Your task to perform on an android device: turn on location history Image 0: 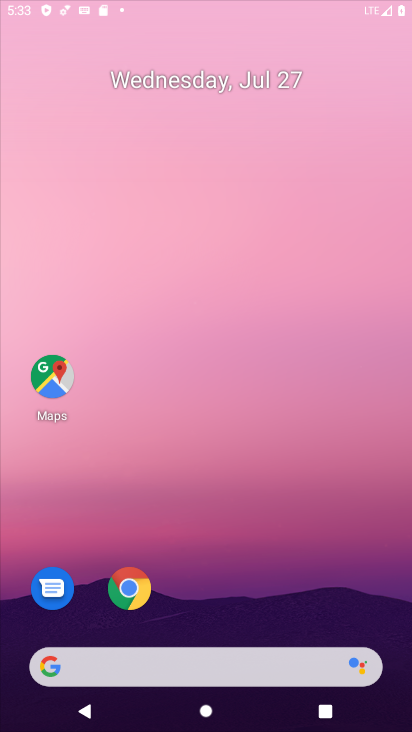
Step 0: press home button
Your task to perform on an android device: turn on location history Image 1: 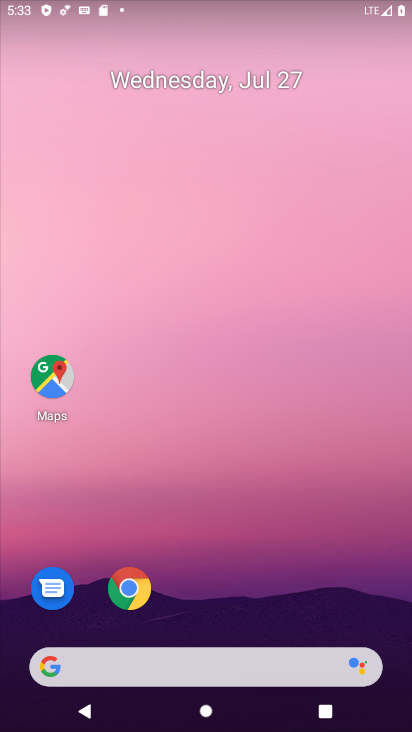
Step 1: drag from (264, 620) to (222, 0)
Your task to perform on an android device: turn on location history Image 2: 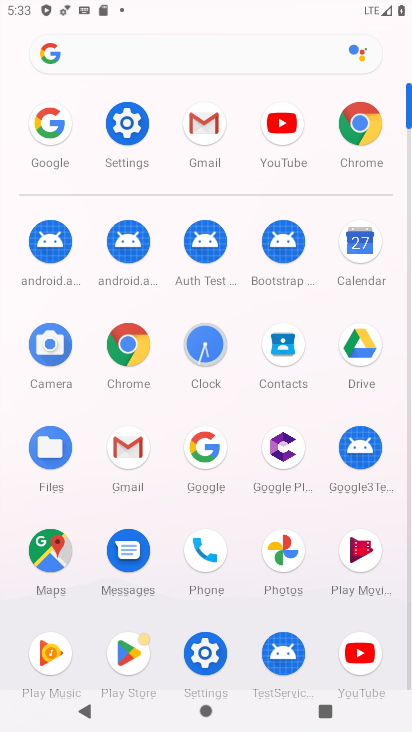
Step 2: click (115, 117)
Your task to perform on an android device: turn on location history Image 3: 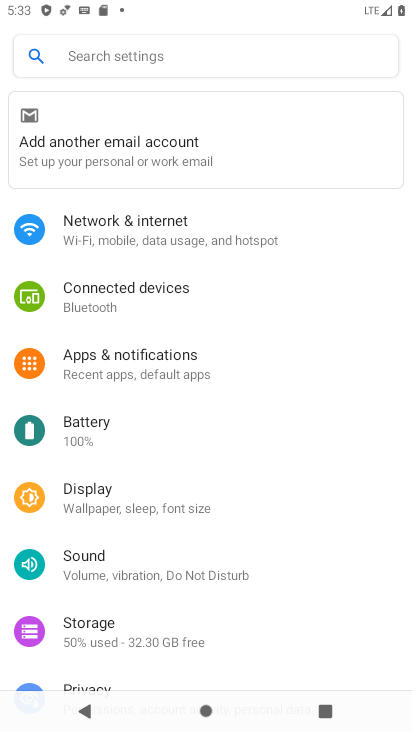
Step 3: drag from (143, 555) to (204, 171)
Your task to perform on an android device: turn on location history Image 4: 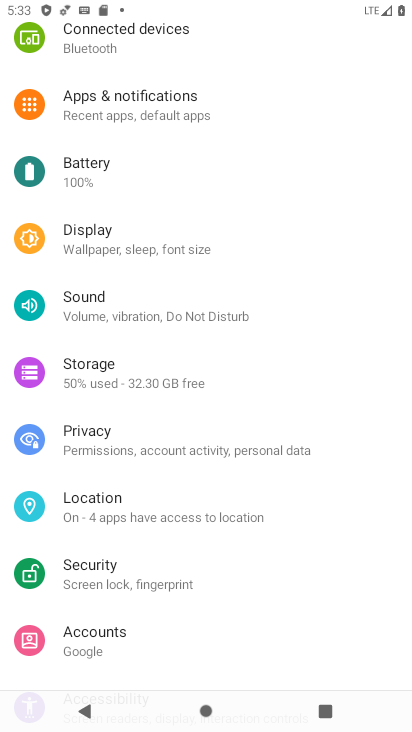
Step 4: click (148, 442)
Your task to perform on an android device: turn on location history Image 5: 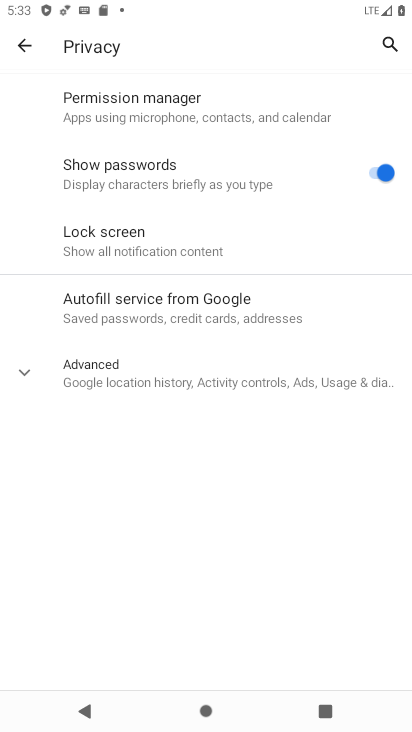
Step 5: press back button
Your task to perform on an android device: turn on location history Image 6: 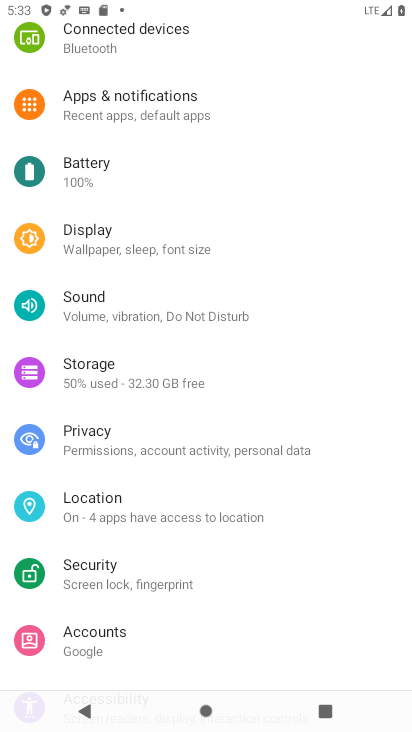
Step 6: click (121, 508)
Your task to perform on an android device: turn on location history Image 7: 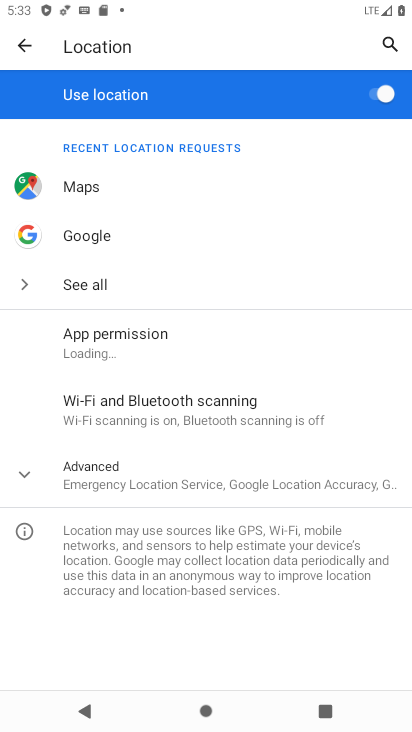
Step 7: click (165, 480)
Your task to perform on an android device: turn on location history Image 8: 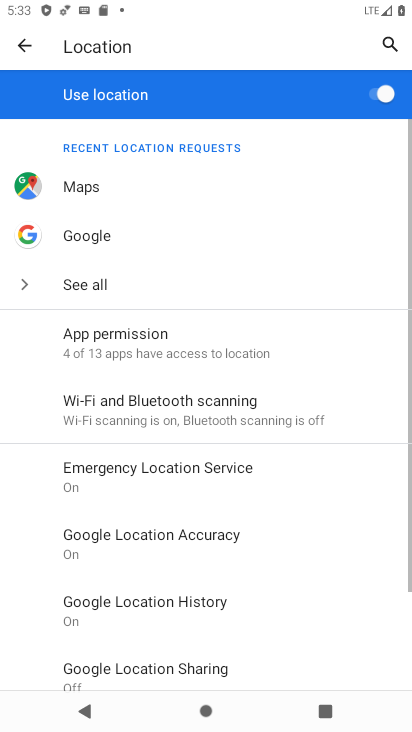
Step 8: click (186, 600)
Your task to perform on an android device: turn on location history Image 9: 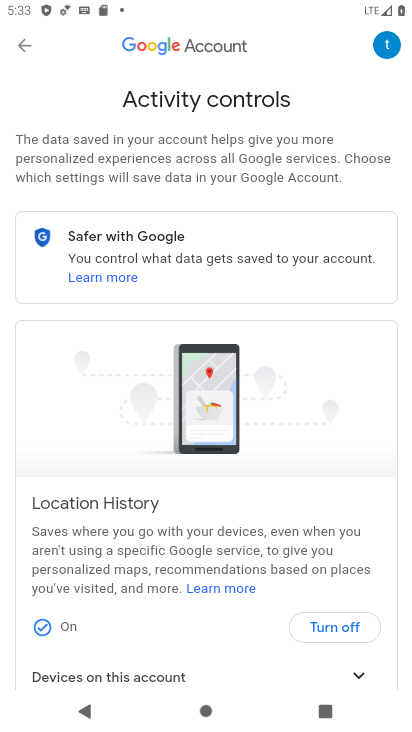
Step 9: task complete